Your task to perform on an android device: open app "Messenger Lite" (install if not already installed), go to login, and select forgot password Image 0: 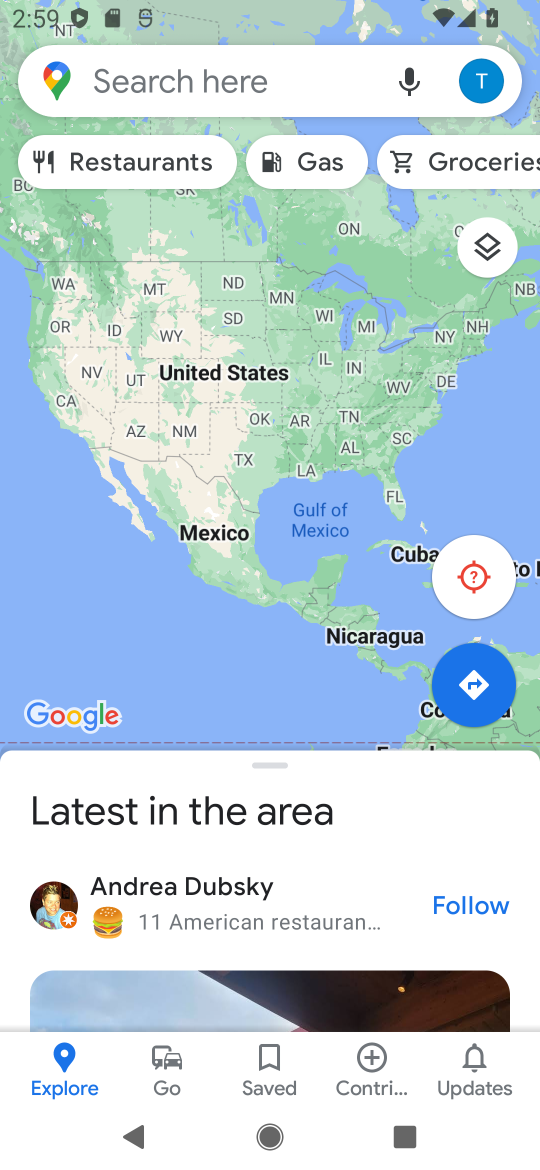
Step 0: press home button
Your task to perform on an android device: open app "Messenger Lite" (install if not already installed), go to login, and select forgot password Image 1: 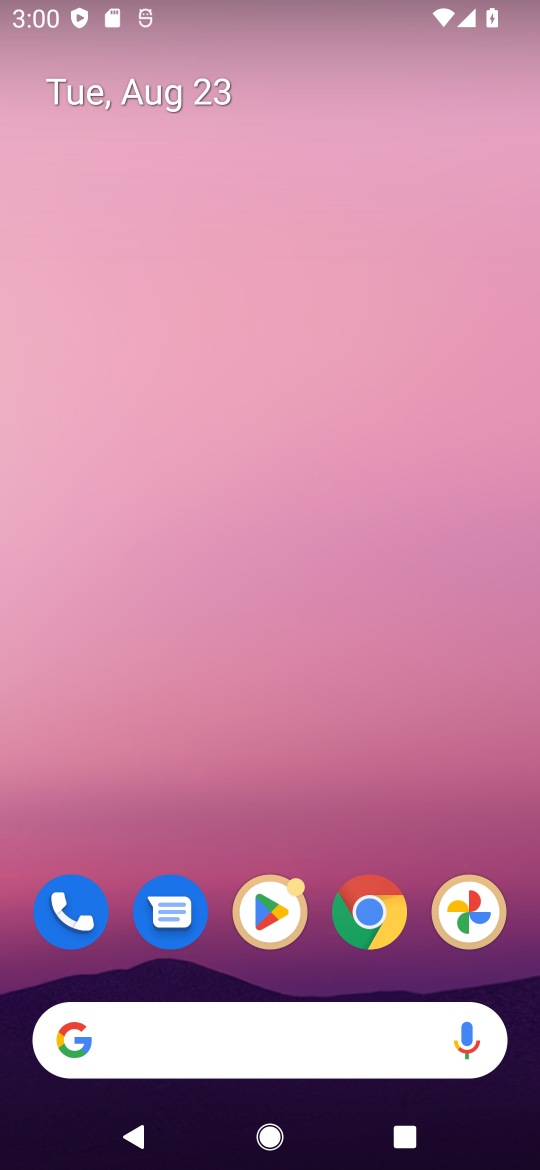
Step 1: drag from (237, 1045) to (279, 255)
Your task to perform on an android device: open app "Messenger Lite" (install if not already installed), go to login, and select forgot password Image 2: 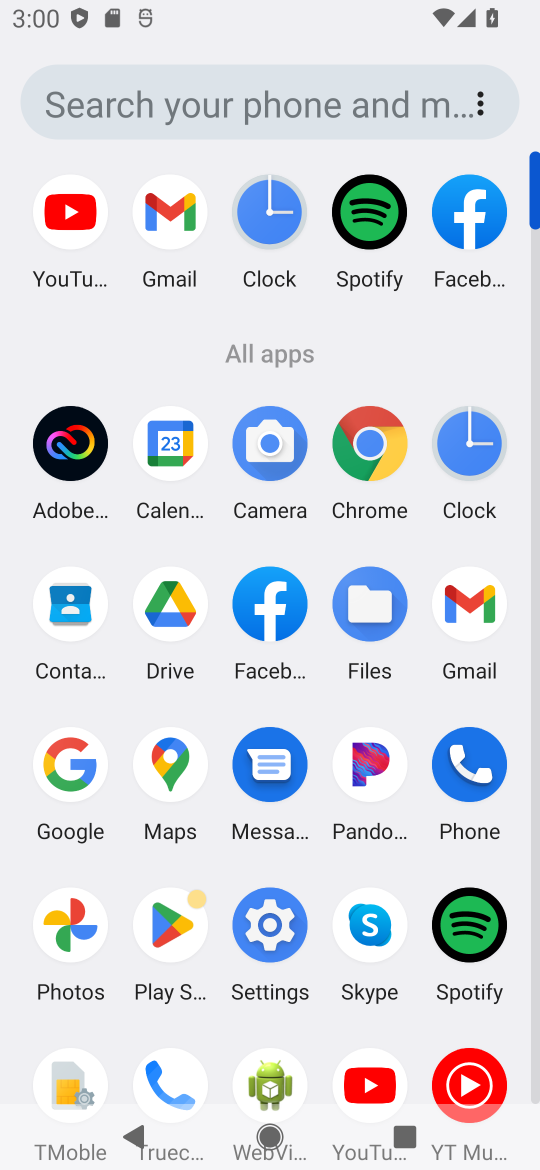
Step 2: click (180, 923)
Your task to perform on an android device: open app "Messenger Lite" (install if not already installed), go to login, and select forgot password Image 3: 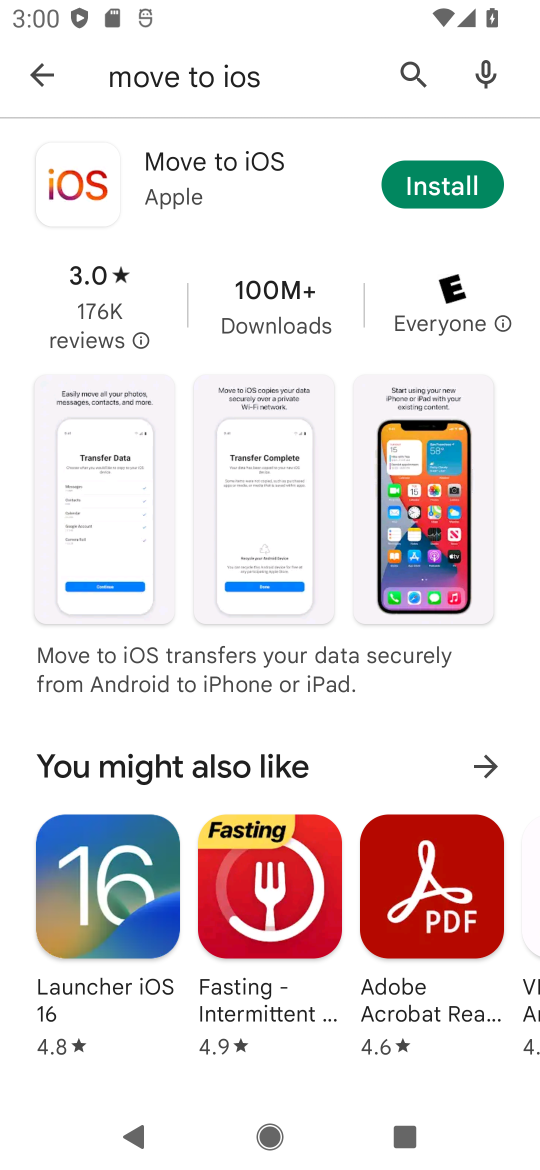
Step 3: press back button
Your task to perform on an android device: open app "Messenger Lite" (install if not already installed), go to login, and select forgot password Image 4: 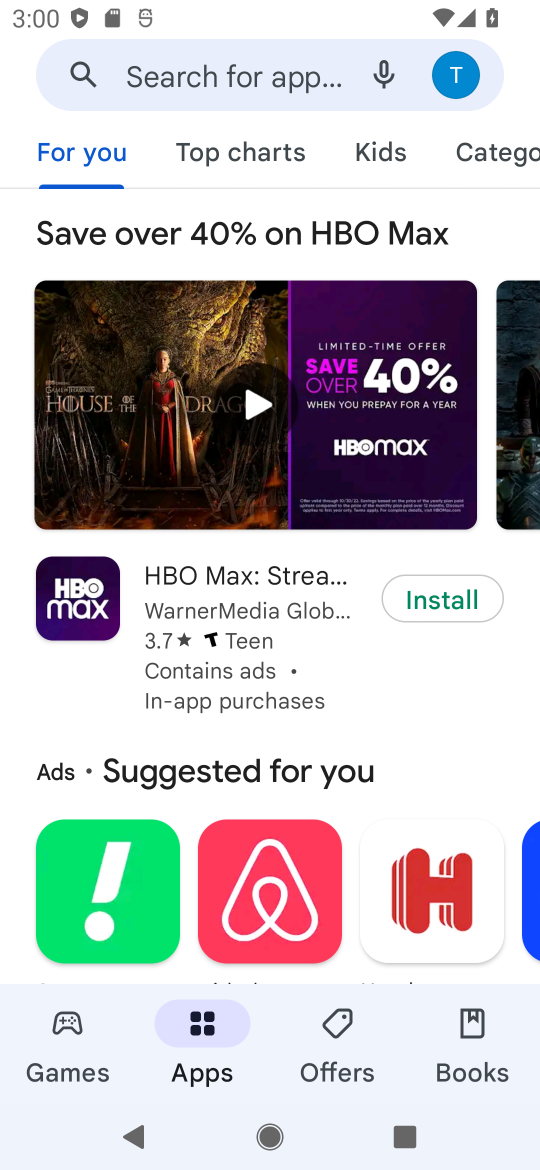
Step 4: click (279, 76)
Your task to perform on an android device: open app "Messenger Lite" (install if not already installed), go to login, and select forgot password Image 5: 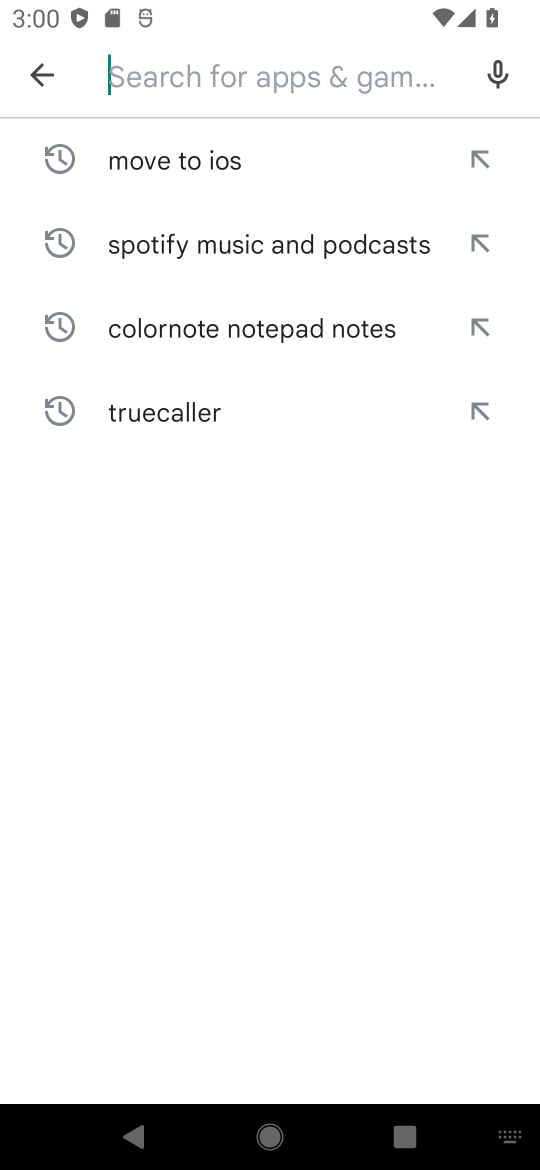
Step 5: type "Messenger Lite"
Your task to perform on an android device: open app "Messenger Lite" (install if not already installed), go to login, and select forgot password Image 6: 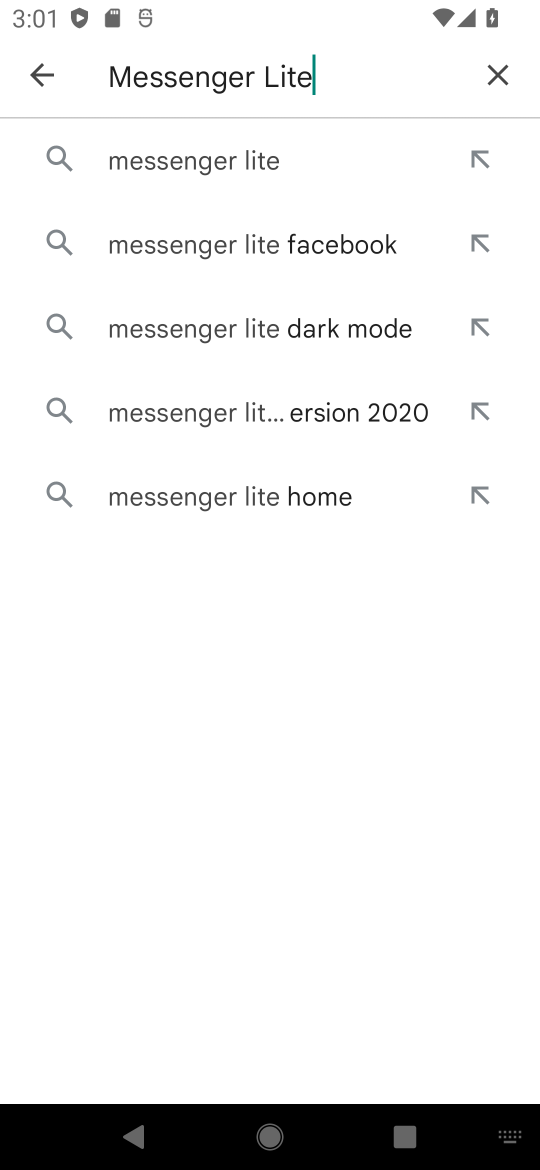
Step 6: click (178, 175)
Your task to perform on an android device: open app "Messenger Lite" (install if not already installed), go to login, and select forgot password Image 7: 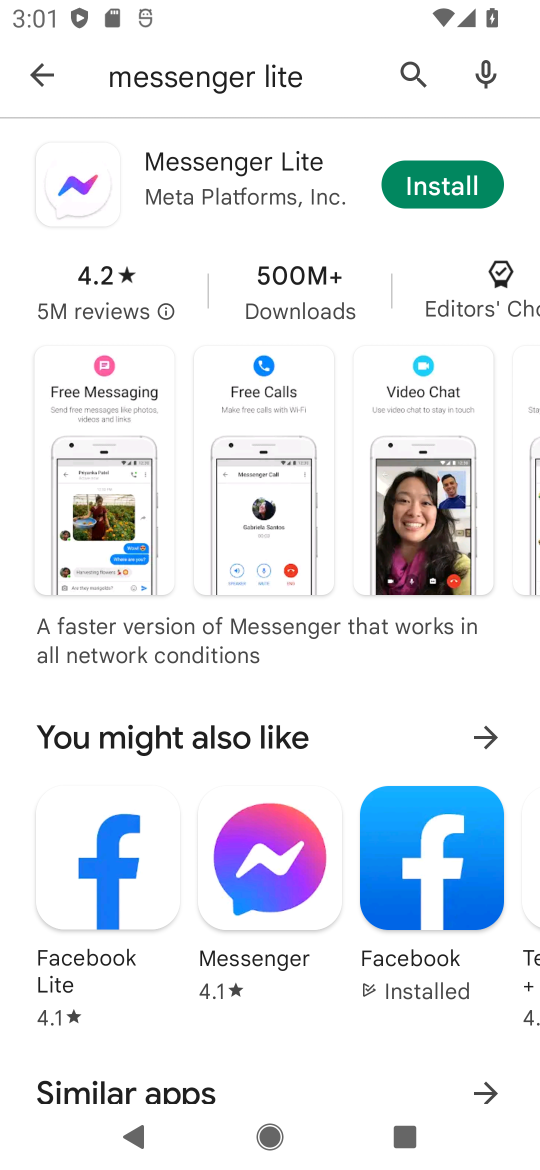
Step 7: click (424, 180)
Your task to perform on an android device: open app "Messenger Lite" (install if not already installed), go to login, and select forgot password Image 8: 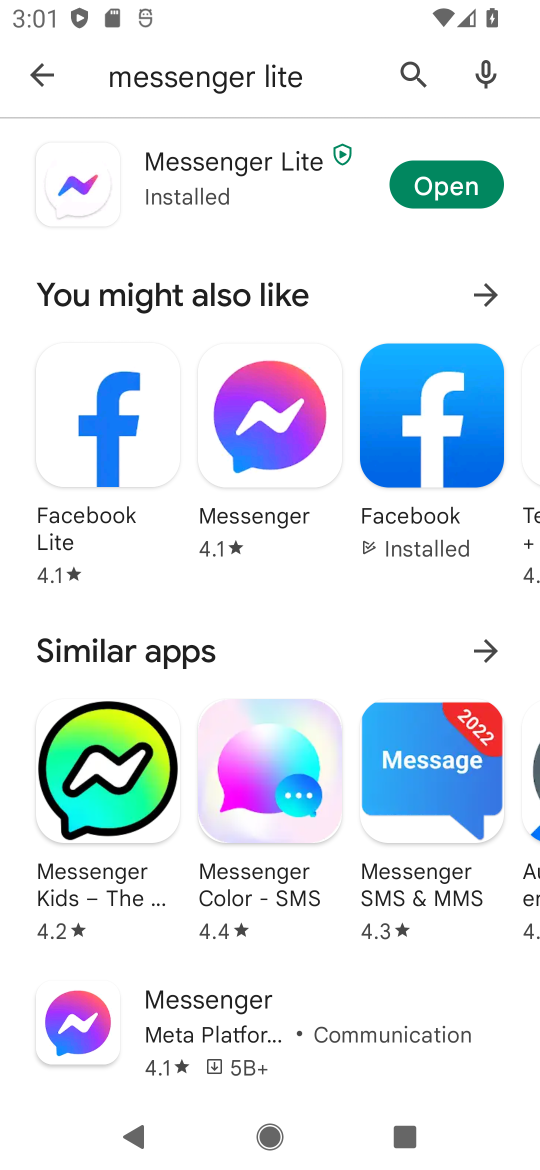
Step 8: click (449, 195)
Your task to perform on an android device: open app "Messenger Lite" (install if not already installed), go to login, and select forgot password Image 9: 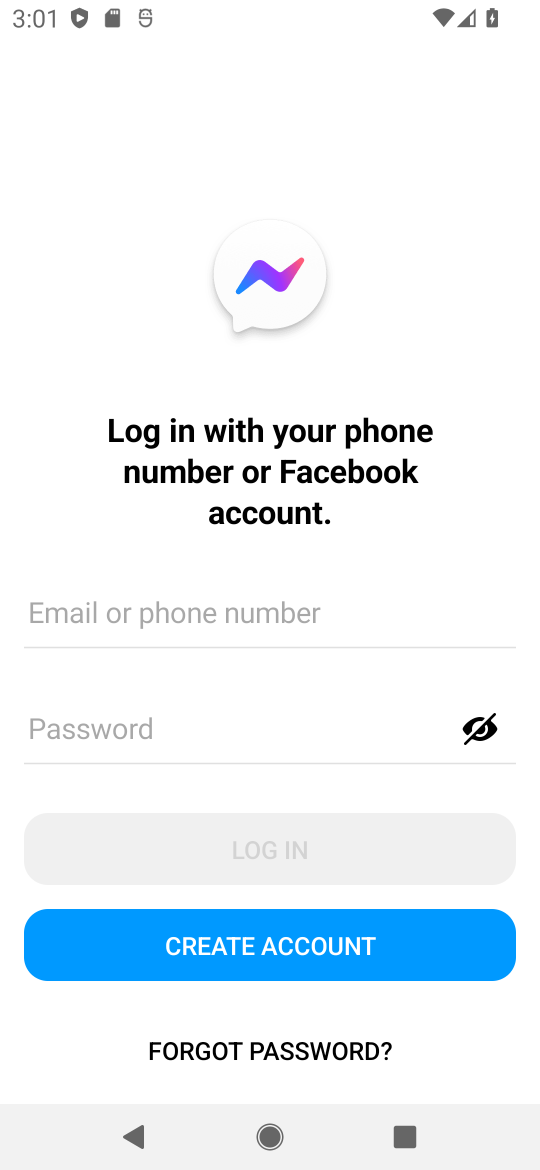
Step 9: click (145, 621)
Your task to perform on an android device: open app "Messenger Lite" (install if not already installed), go to login, and select forgot password Image 10: 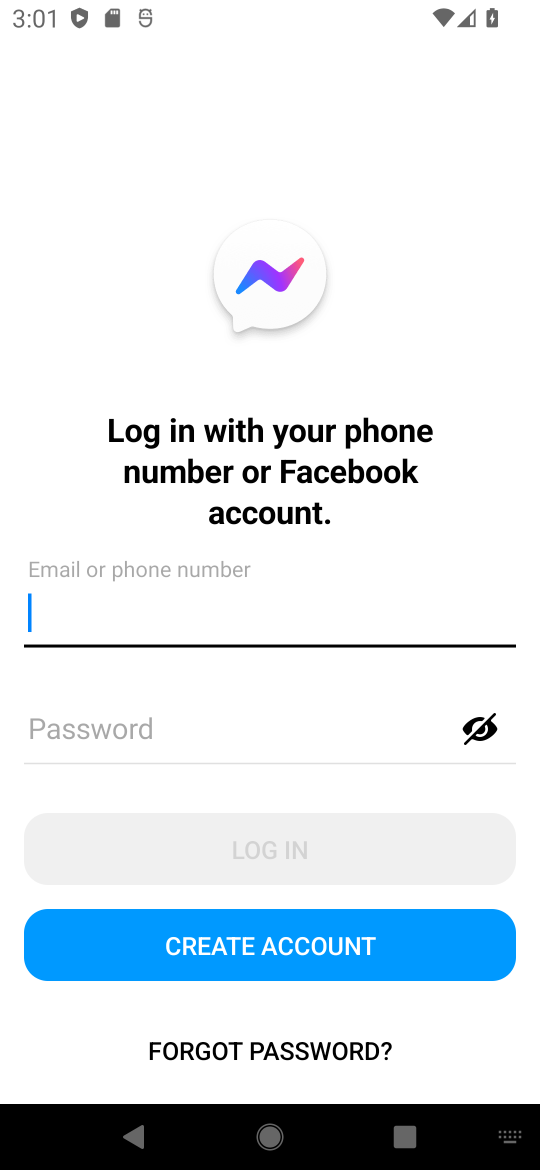
Step 10: click (347, 1047)
Your task to perform on an android device: open app "Messenger Lite" (install if not already installed), go to login, and select forgot password Image 11: 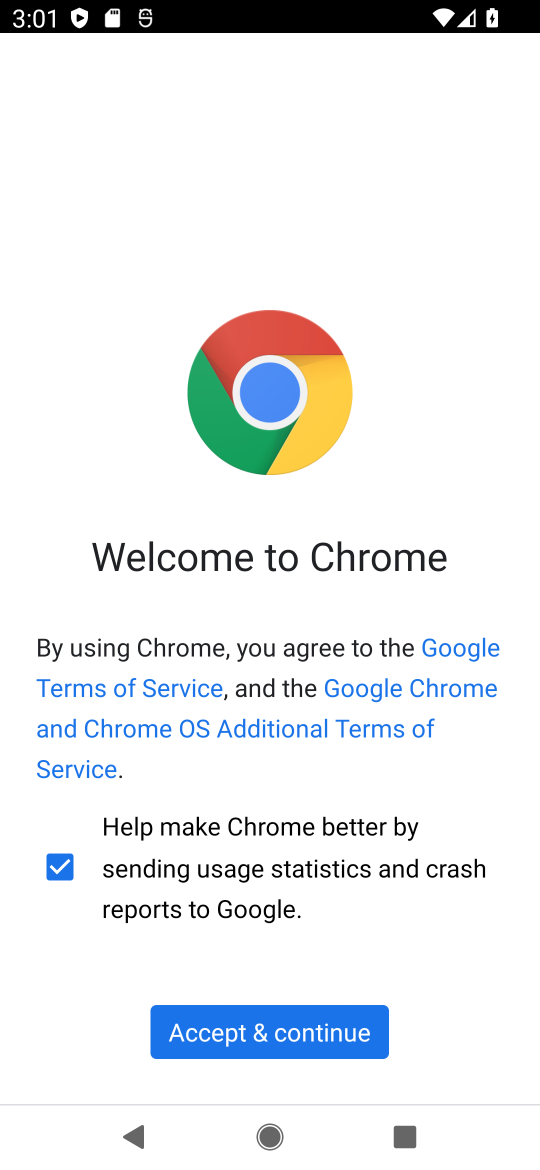
Step 11: task complete